Your task to perform on an android device: Is it going to rain this weekend? Image 0: 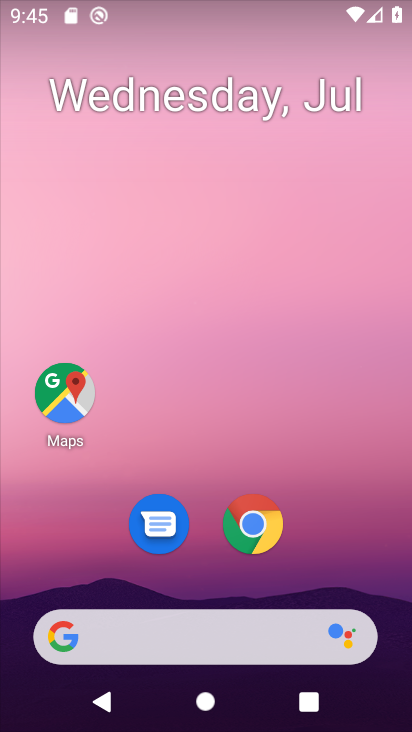
Step 0: click (258, 641)
Your task to perform on an android device: Is it going to rain this weekend? Image 1: 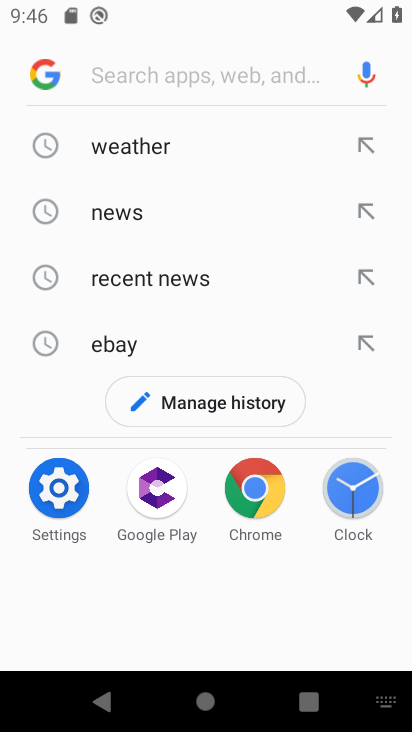
Step 1: click (155, 146)
Your task to perform on an android device: Is it going to rain this weekend? Image 2: 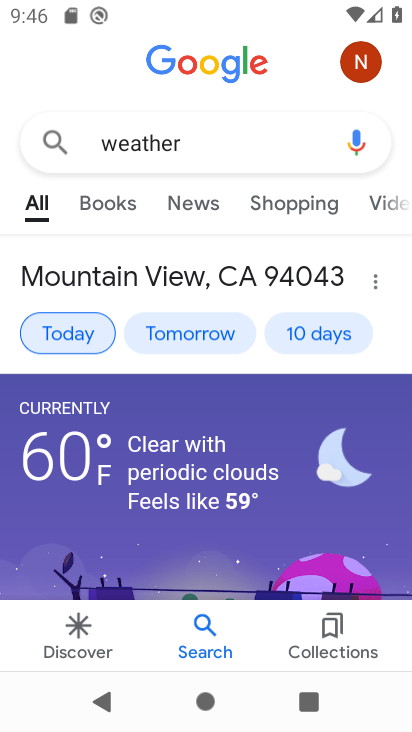
Step 2: click (326, 335)
Your task to perform on an android device: Is it going to rain this weekend? Image 3: 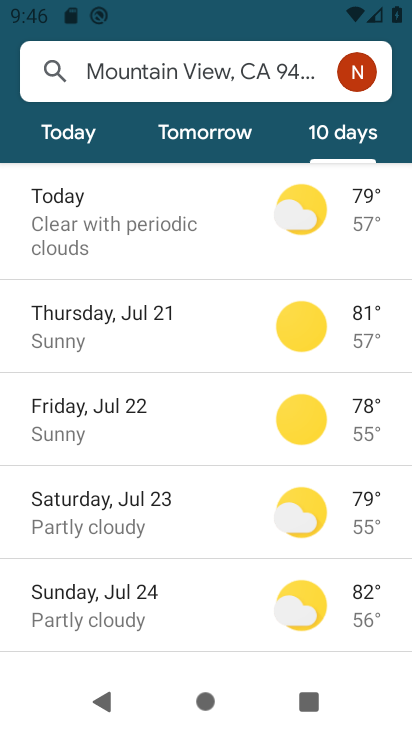
Step 3: click (154, 508)
Your task to perform on an android device: Is it going to rain this weekend? Image 4: 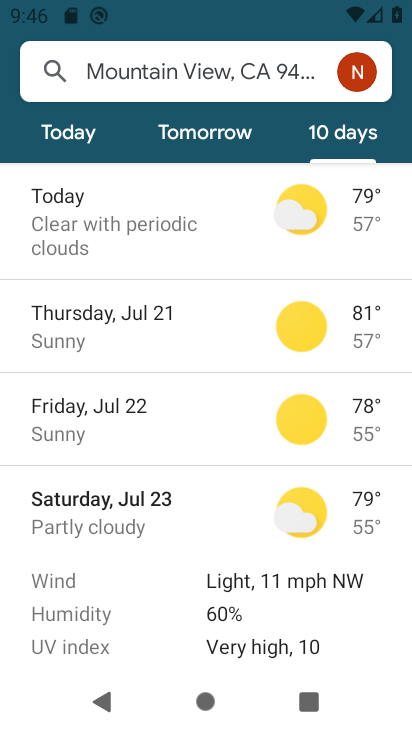
Step 4: task complete